Your task to perform on an android device: Open maps Image 0: 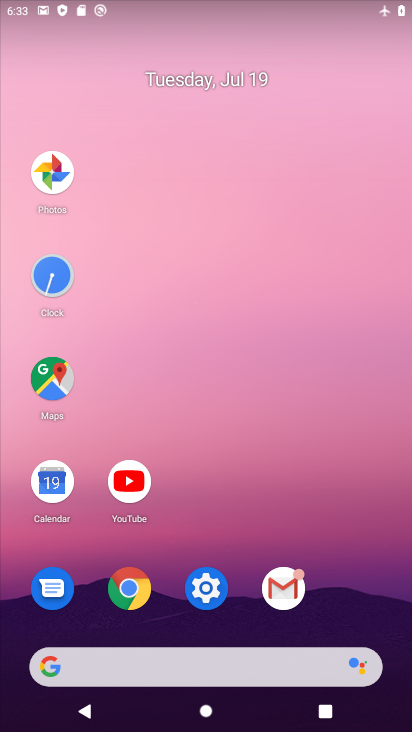
Step 0: click (49, 373)
Your task to perform on an android device: Open maps Image 1: 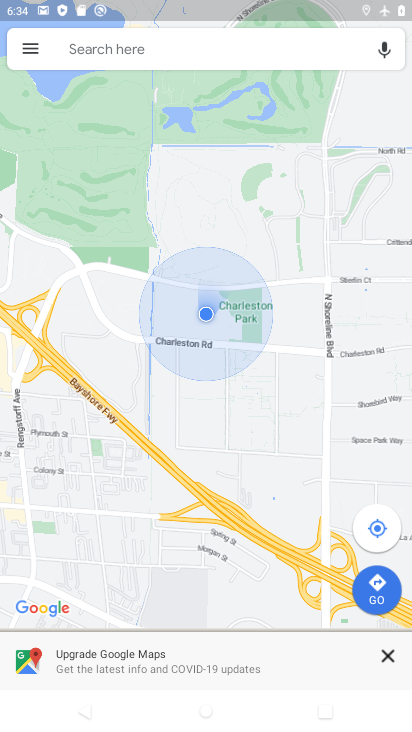
Step 1: task complete